Your task to perform on an android device: delete a single message in the gmail app Image 0: 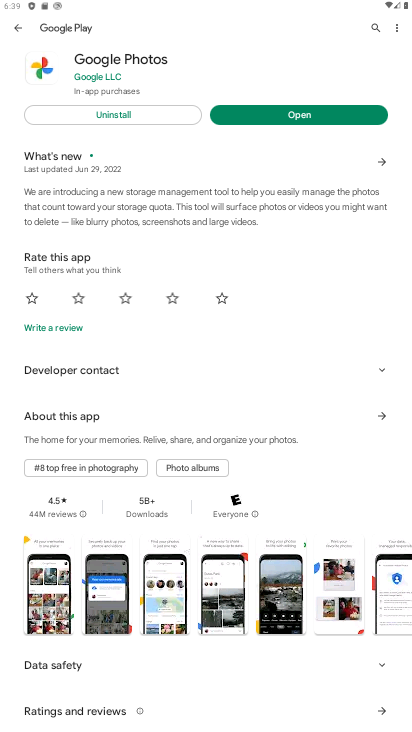
Step 0: press home button
Your task to perform on an android device: delete a single message in the gmail app Image 1: 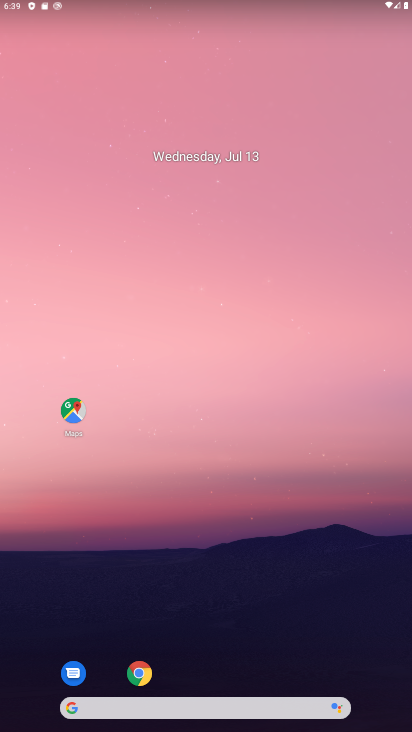
Step 1: drag from (294, 607) to (299, 225)
Your task to perform on an android device: delete a single message in the gmail app Image 2: 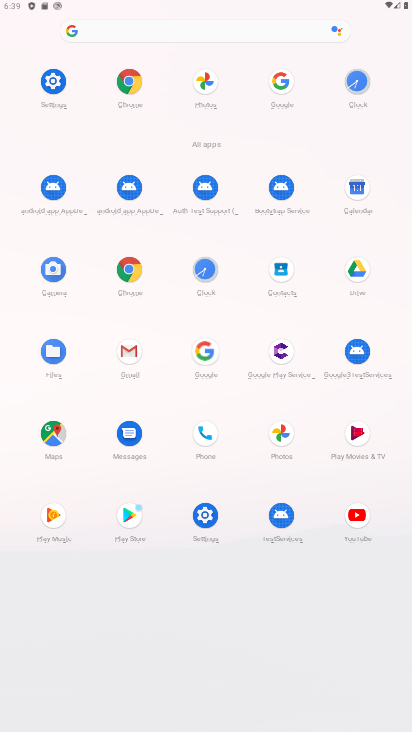
Step 2: click (139, 353)
Your task to perform on an android device: delete a single message in the gmail app Image 3: 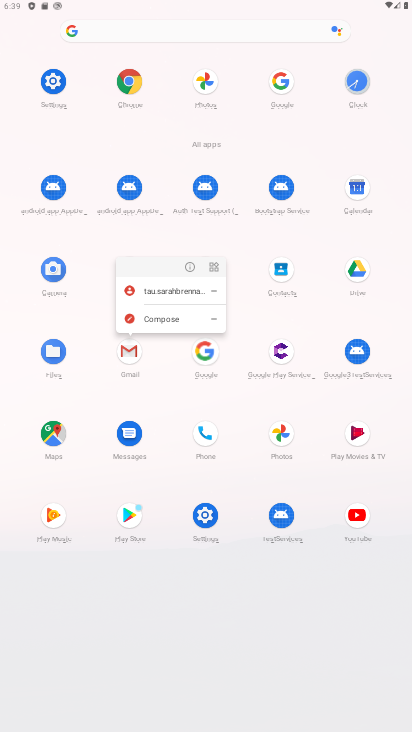
Step 3: click (134, 356)
Your task to perform on an android device: delete a single message in the gmail app Image 4: 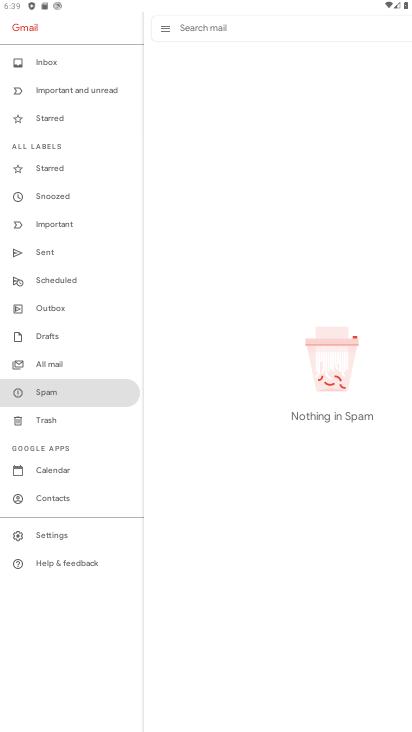
Step 4: click (48, 61)
Your task to perform on an android device: delete a single message in the gmail app Image 5: 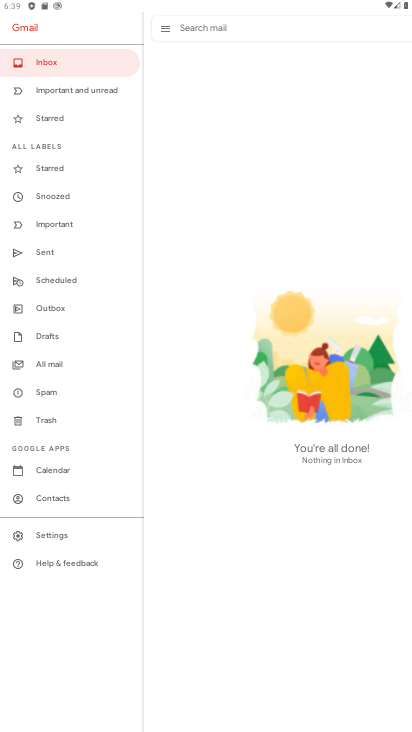
Step 5: task complete